Your task to perform on an android device: toggle wifi Image 0: 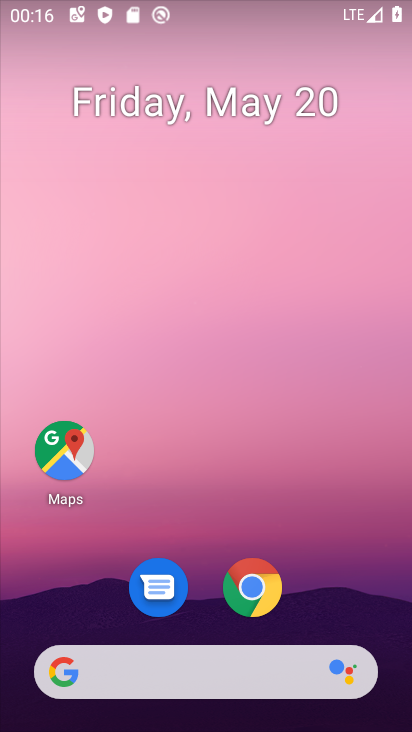
Step 0: drag from (260, 697) to (252, 224)
Your task to perform on an android device: toggle wifi Image 1: 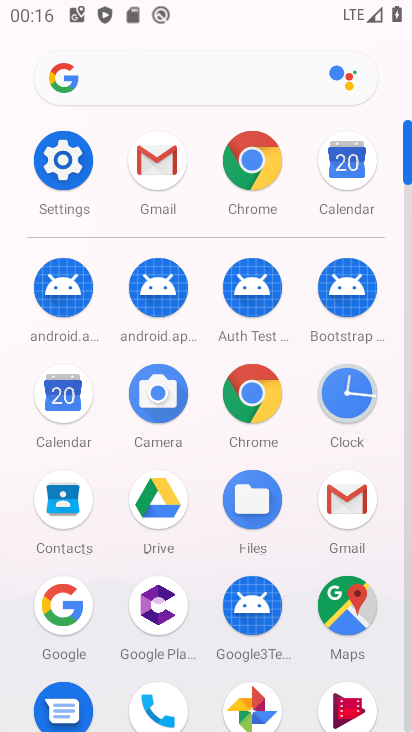
Step 1: click (77, 183)
Your task to perform on an android device: toggle wifi Image 2: 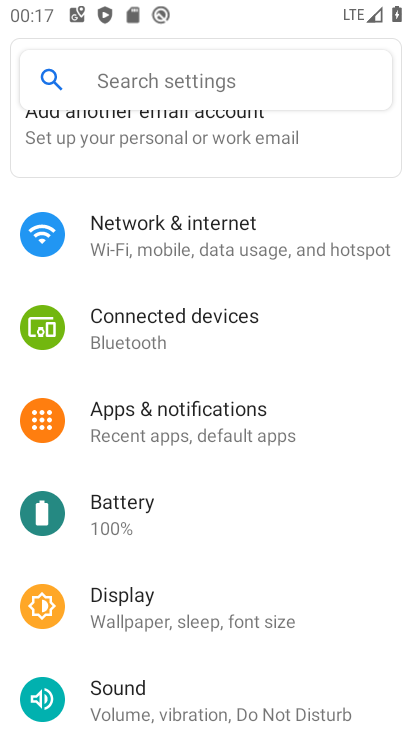
Step 2: click (174, 231)
Your task to perform on an android device: toggle wifi Image 3: 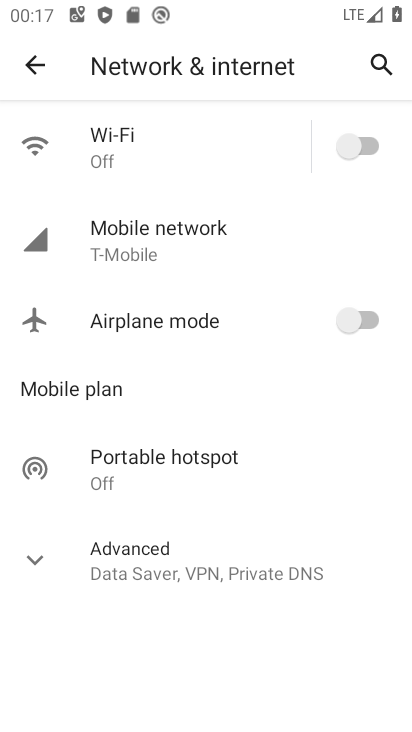
Step 3: click (126, 150)
Your task to perform on an android device: toggle wifi Image 4: 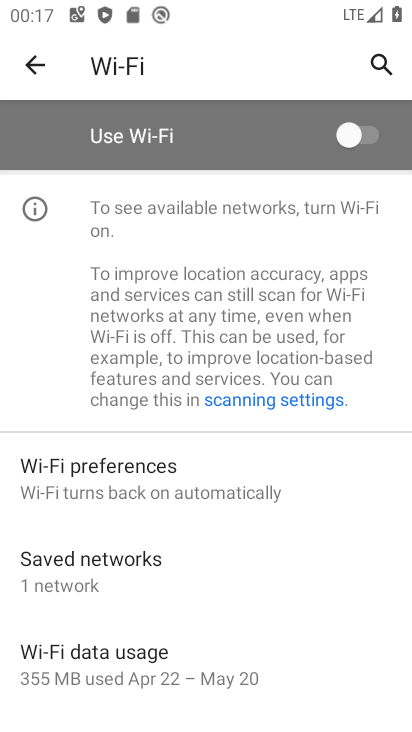
Step 4: task complete